Your task to perform on an android device: toggle notifications settings in the gmail app Image 0: 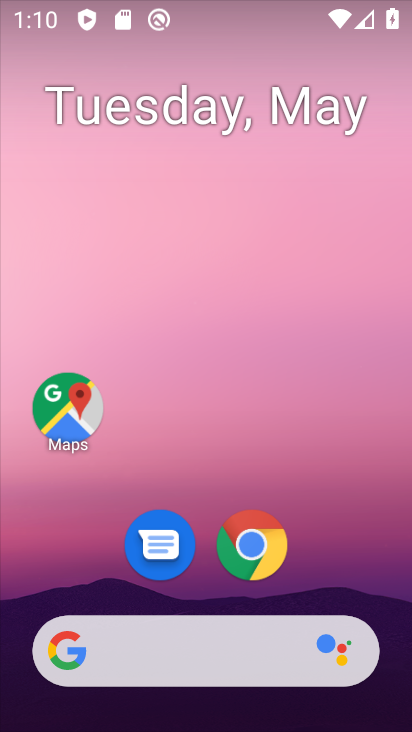
Step 0: drag from (379, 612) to (344, 100)
Your task to perform on an android device: toggle notifications settings in the gmail app Image 1: 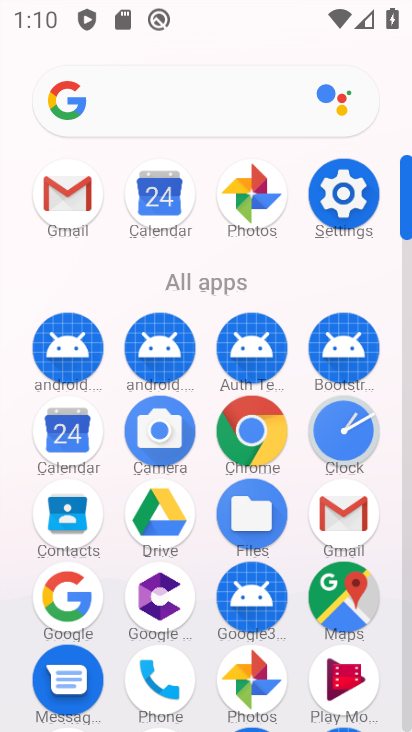
Step 1: click (405, 705)
Your task to perform on an android device: toggle notifications settings in the gmail app Image 2: 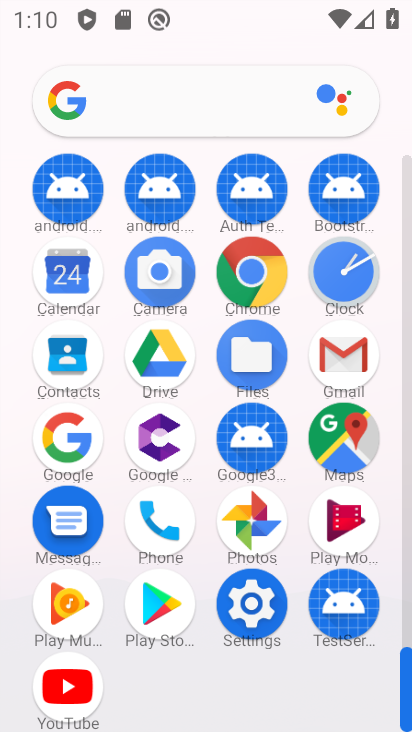
Step 2: click (340, 349)
Your task to perform on an android device: toggle notifications settings in the gmail app Image 3: 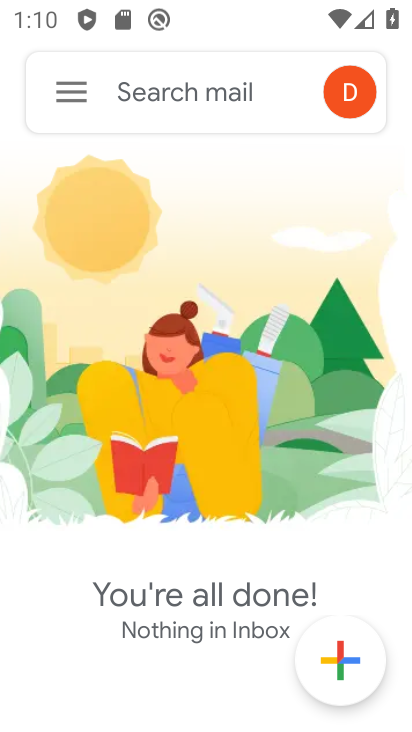
Step 3: click (69, 98)
Your task to perform on an android device: toggle notifications settings in the gmail app Image 4: 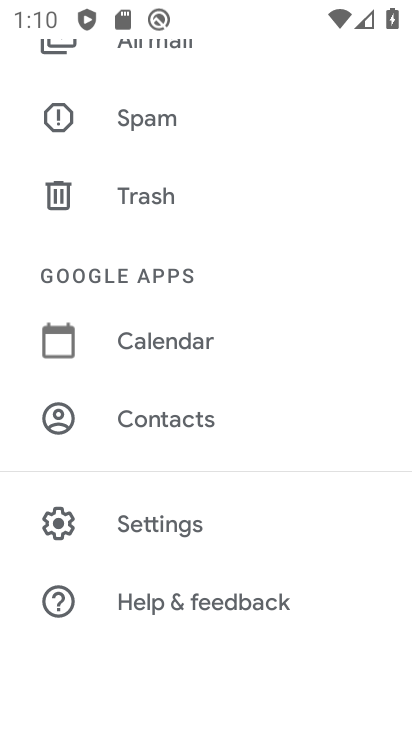
Step 4: click (153, 517)
Your task to perform on an android device: toggle notifications settings in the gmail app Image 5: 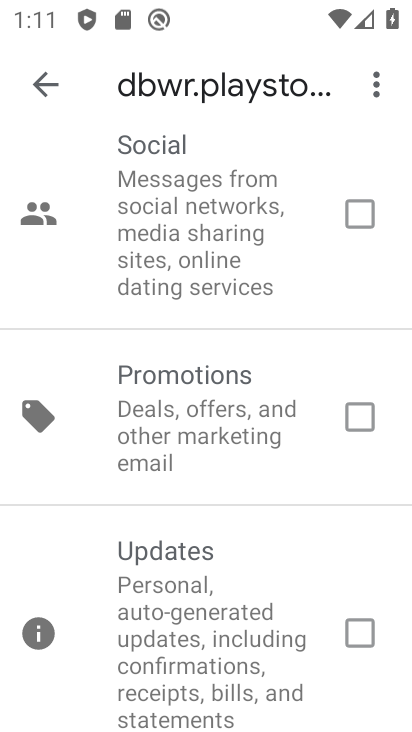
Step 5: press back button
Your task to perform on an android device: toggle notifications settings in the gmail app Image 6: 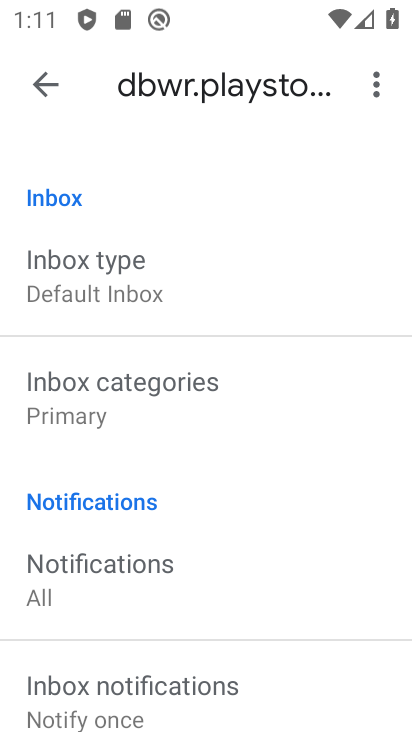
Step 6: drag from (222, 528) to (248, 168)
Your task to perform on an android device: toggle notifications settings in the gmail app Image 7: 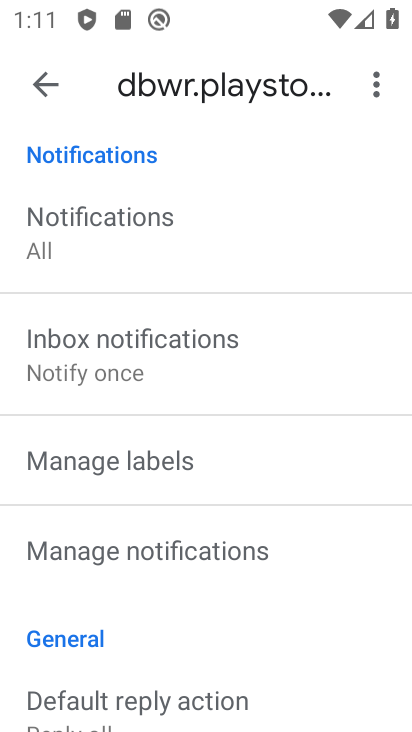
Step 7: click (140, 569)
Your task to perform on an android device: toggle notifications settings in the gmail app Image 8: 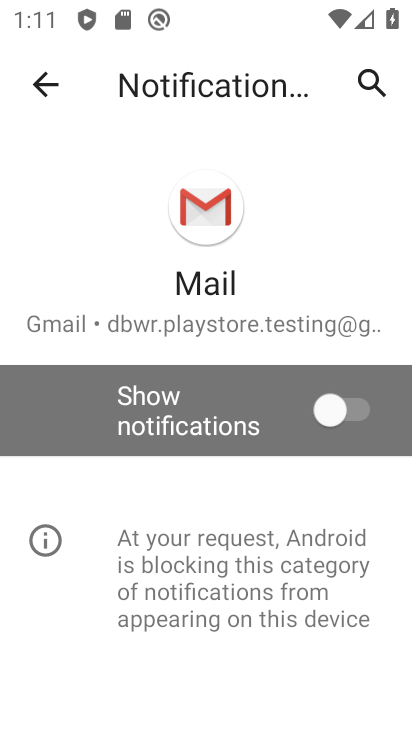
Step 8: click (355, 406)
Your task to perform on an android device: toggle notifications settings in the gmail app Image 9: 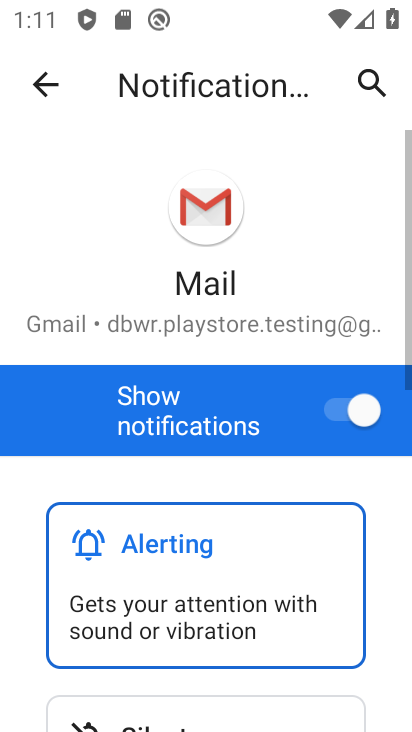
Step 9: task complete